Your task to perform on an android device: Show me recent news Image 0: 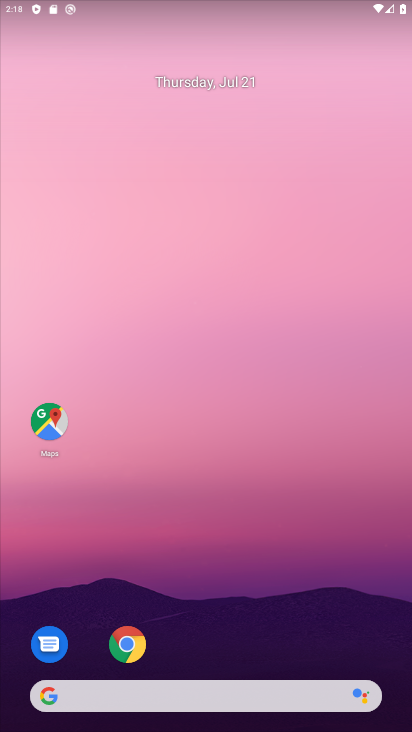
Step 0: drag from (286, 608) to (172, 59)
Your task to perform on an android device: Show me recent news Image 1: 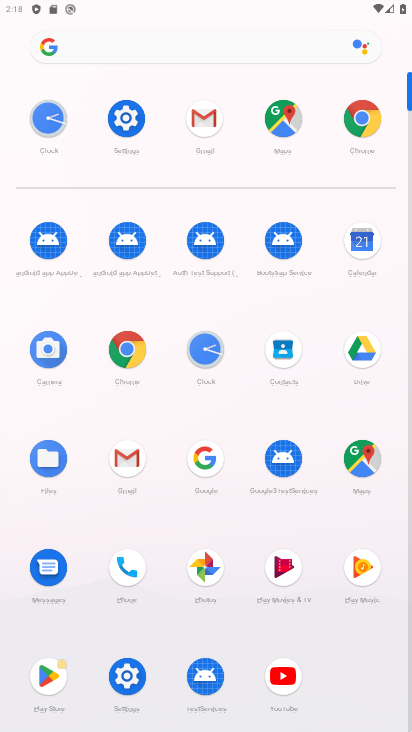
Step 1: click (357, 129)
Your task to perform on an android device: Show me recent news Image 2: 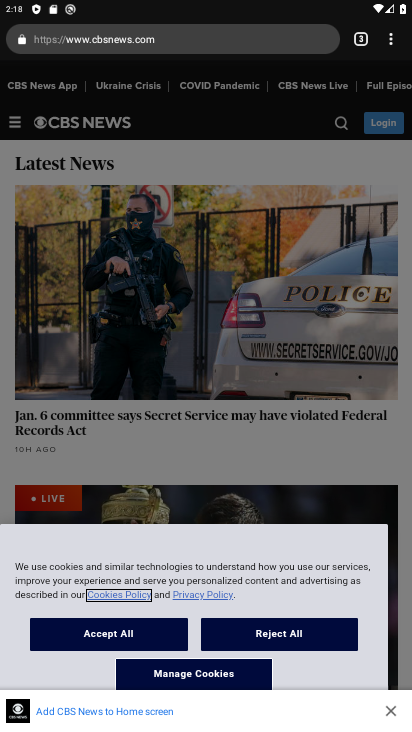
Step 2: click (184, 39)
Your task to perform on an android device: Show me recent news Image 3: 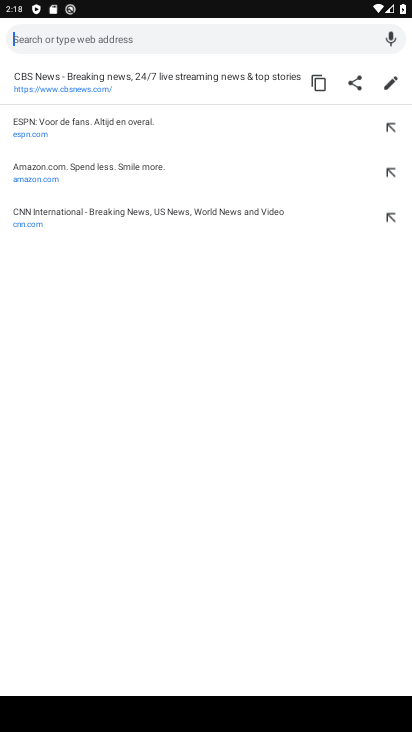
Step 3: type "Show me recent news"
Your task to perform on an android device: Show me recent news Image 4: 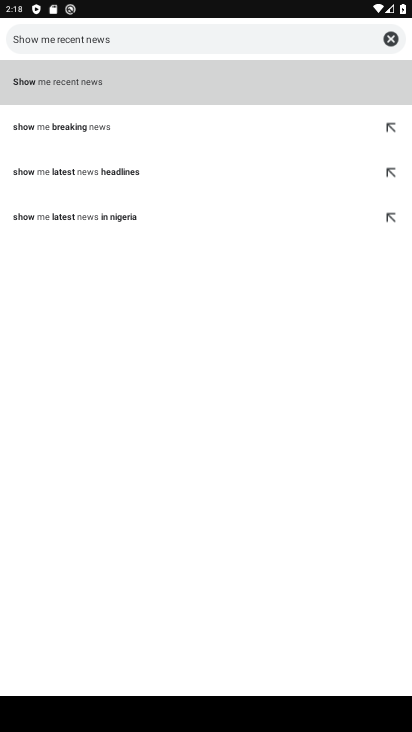
Step 4: click (129, 80)
Your task to perform on an android device: Show me recent news Image 5: 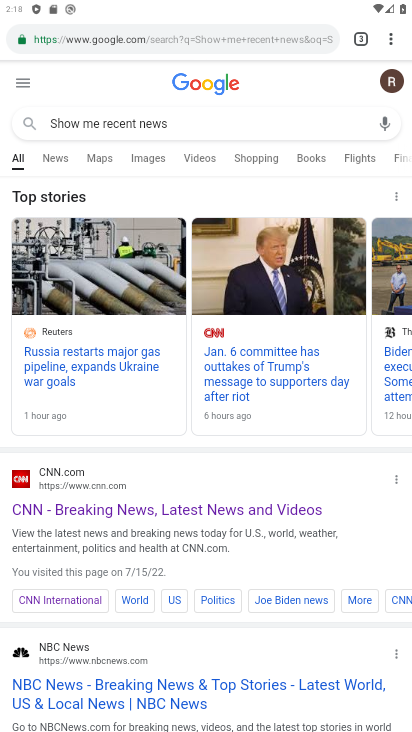
Step 5: task complete